Your task to perform on an android device: Go to Maps Image 0: 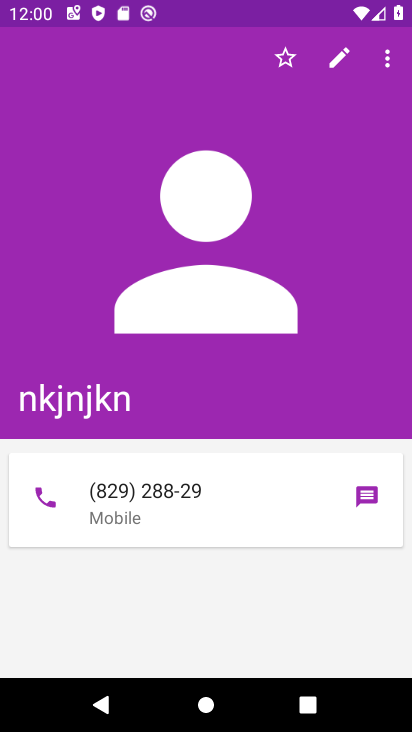
Step 0: press home button
Your task to perform on an android device: Go to Maps Image 1: 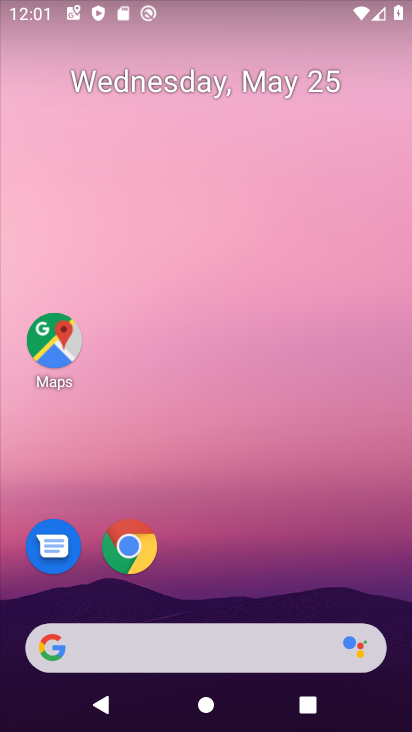
Step 1: click (45, 338)
Your task to perform on an android device: Go to Maps Image 2: 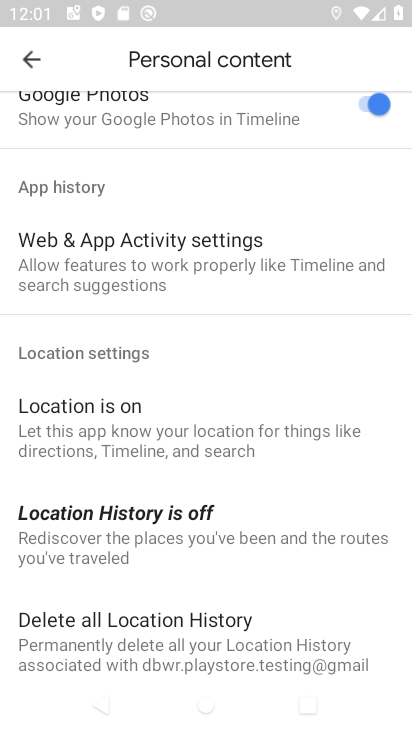
Step 2: click (37, 71)
Your task to perform on an android device: Go to Maps Image 3: 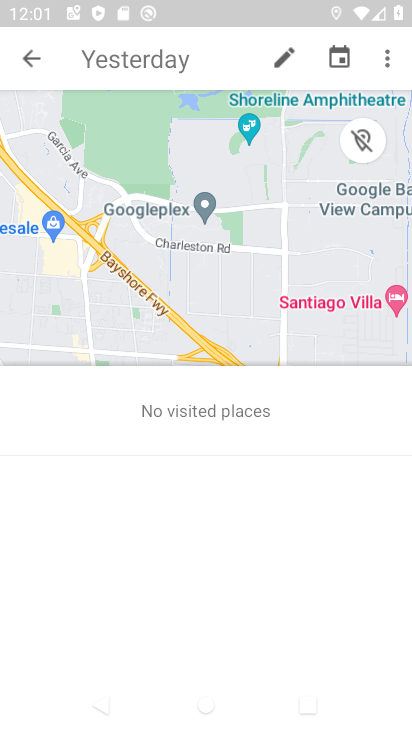
Step 3: click (37, 71)
Your task to perform on an android device: Go to Maps Image 4: 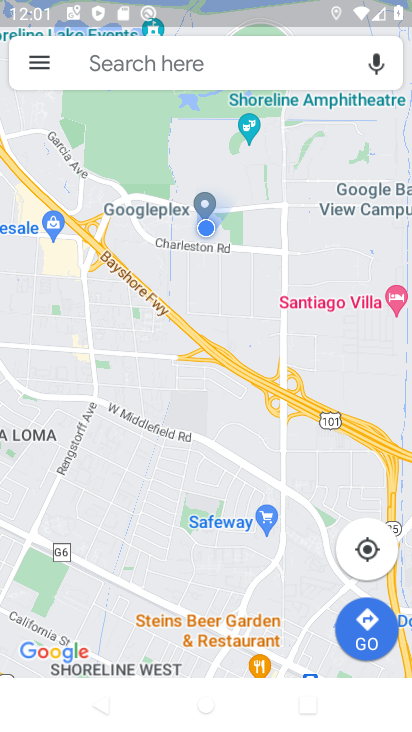
Step 4: task complete